Your task to perform on an android device: toggle priority inbox in the gmail app Image 0: 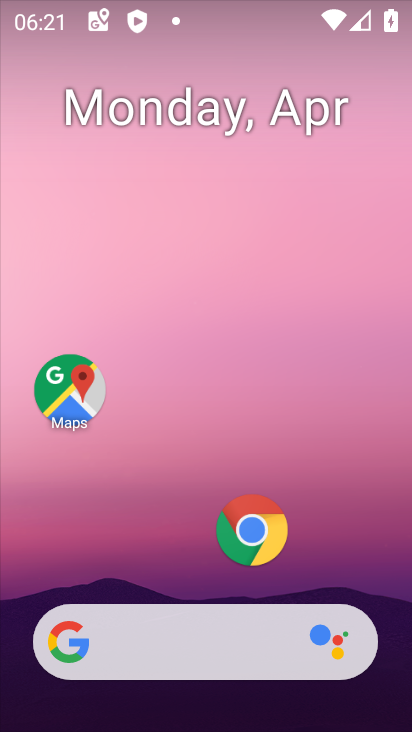
Step 0: drag from (191, 571) to (235, 33)
Your task to perform on an android device: toggle priority inbox in the gmail app Image 1: 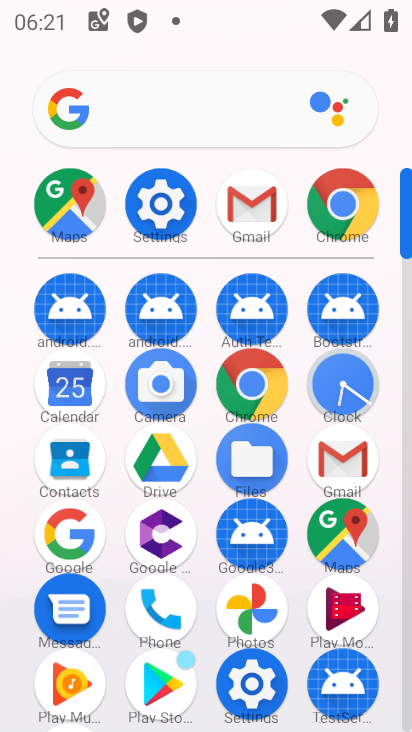
Step 1: click (341, 446)
Your task to perform on an android device: toggle priority inbox in the gmail app Image 2: 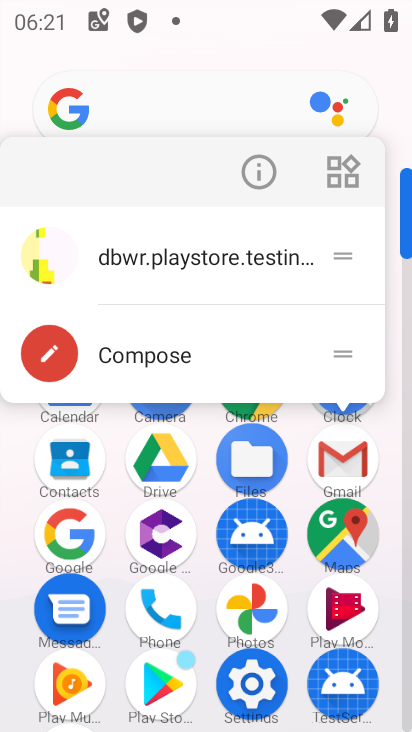
Step 2: click (343, 454)
Your task to perform on an android device: toggle priority inbox in the gmail app Image 3: 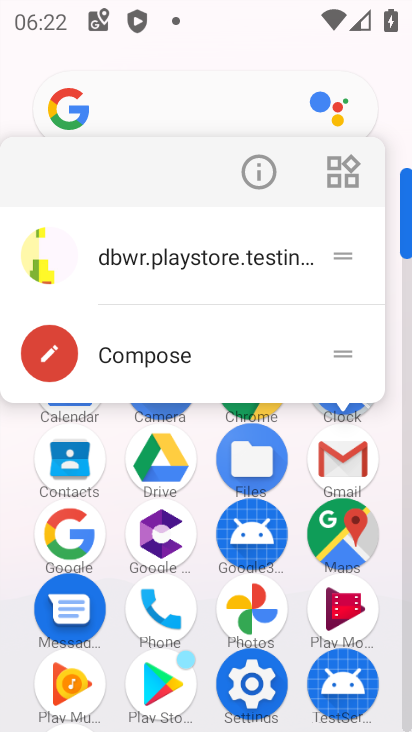
Step 3: click (343, 454)
Your task to perform on an android device: toggle priority inbox in the gmail app Image 4: 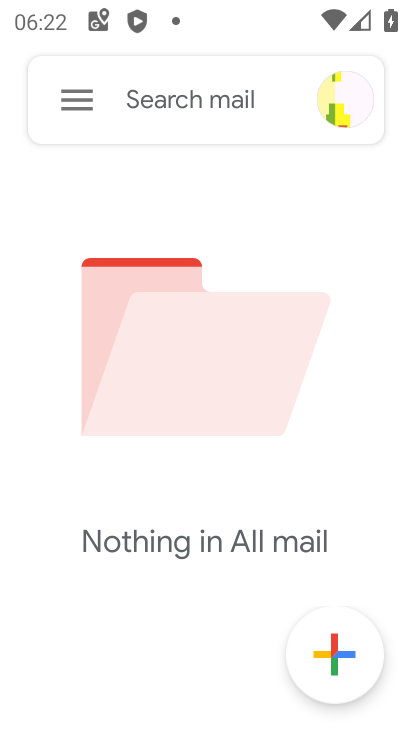
Step 4: click (69, 95)
Your task to perform on an android device: toggle priority inbox in the gmail app Image 5: 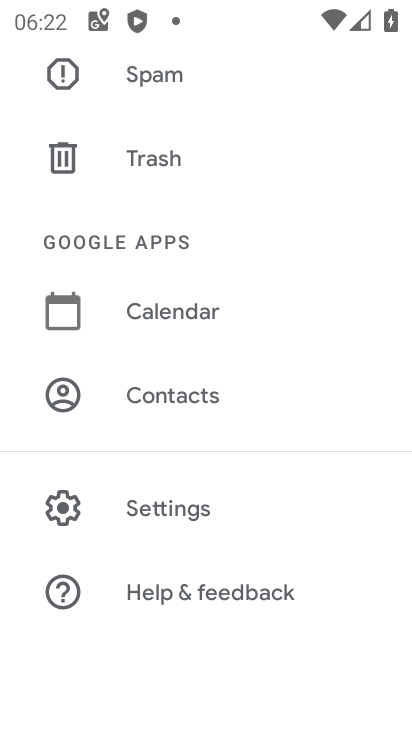
Step 5: click (101, 504)
Your task to perform on an android device: toggle priority inbox in the gmail app Image 6: 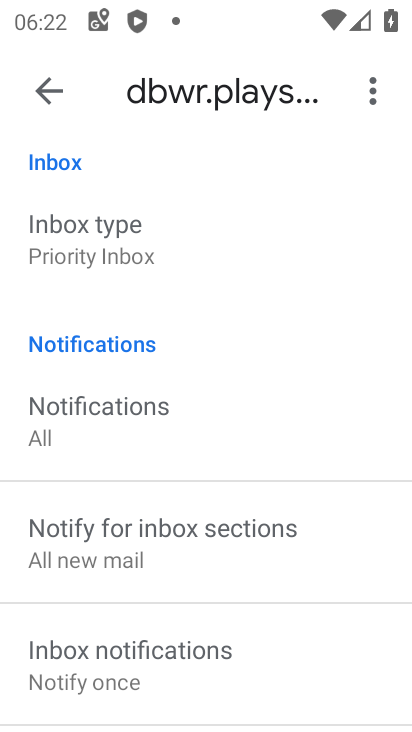
Step 6: click (133, 233)
Your task to perform on an android device: toggle priority inbox in the gmail app Image 7: 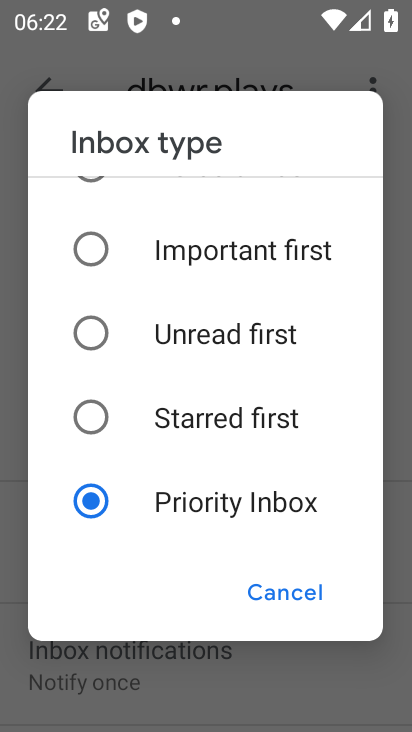
Step 7: drag from (116, 232) to (134, 478)
Your task to perform on an android device: toggle priority inbox in the gmail app Image 8: 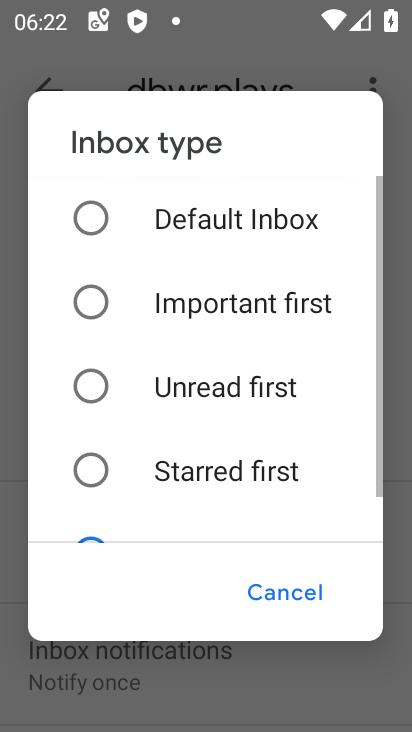
Step 8: click (90, 210)
Your task to perform on an android device: toggle priority inbox in the gmail app Image 9: 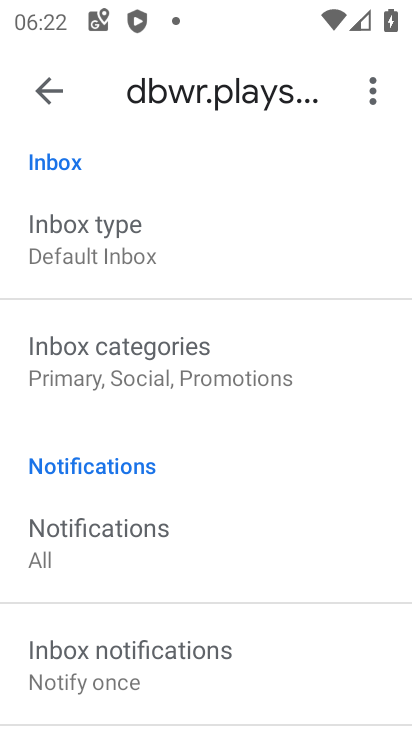
Step 9: task complete